Your task to perform on an android device: delete location history Image 0: 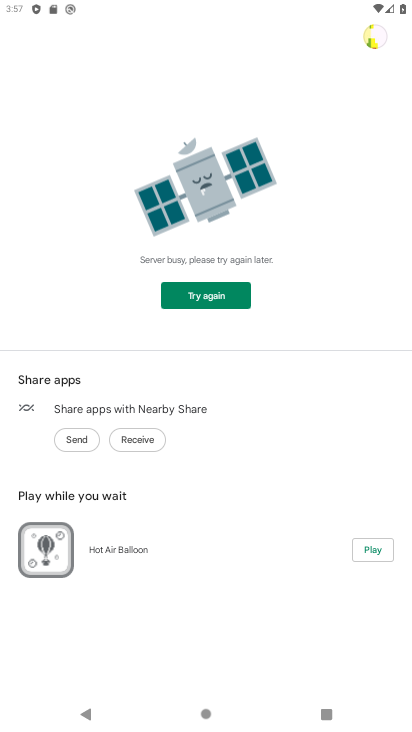
Step 0: press home button
Your task to perform on an android device: delete location history Image 1: 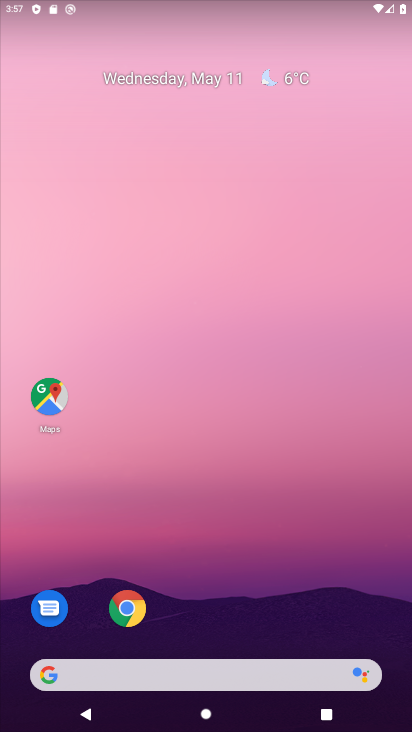
Step 1: drag from (234, 690) to (234, 127)
Your task to perform on an android device: delete location history Image 2: 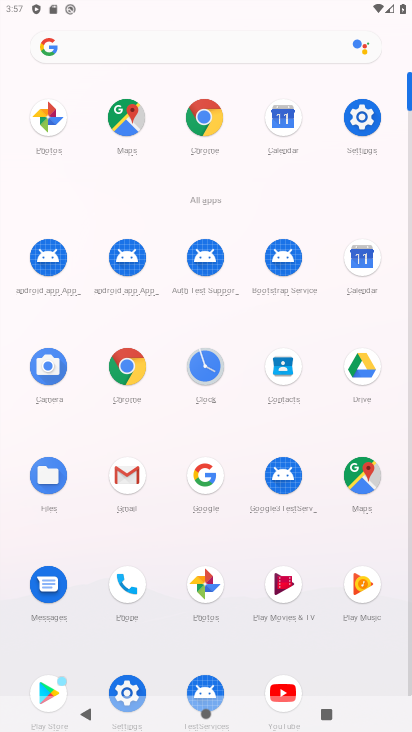
Step 2: click (363, 477)
Your task to perform on an android device: delete location history Image 3: 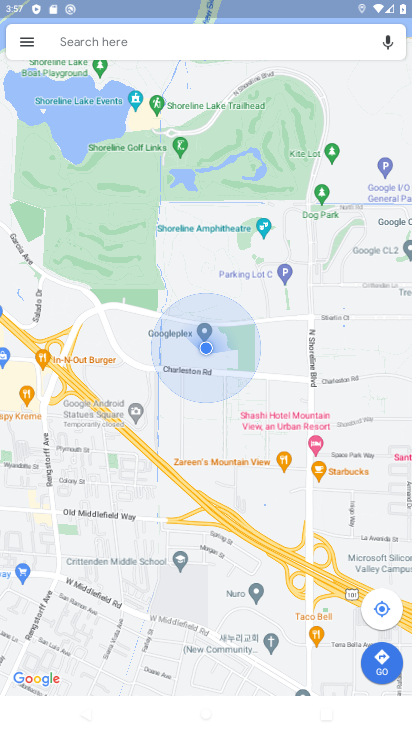
Step 3: click (26, 36)
Your task to perform on an android device: delete location history Image 4: 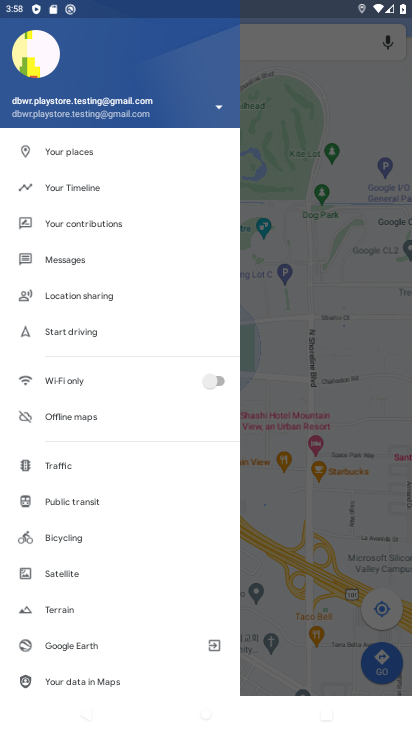
Step 4: click (78, 187)
Your task to perform on an android device: delete location history Image 5: 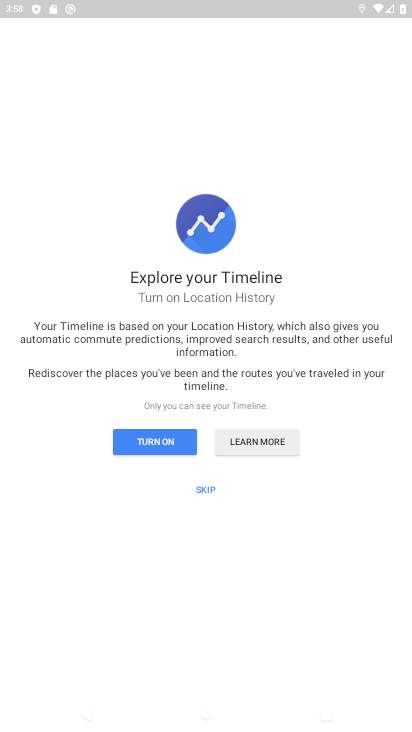
Step 5: click (207, 487)
Your task to perform on an android device: delete location history Image 6: 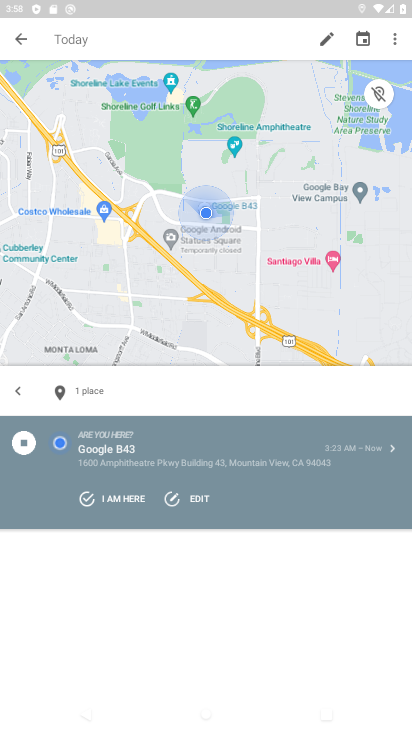
Step 6: click (395, 41)
Your task to perform on an android device: delete location history Image 7: 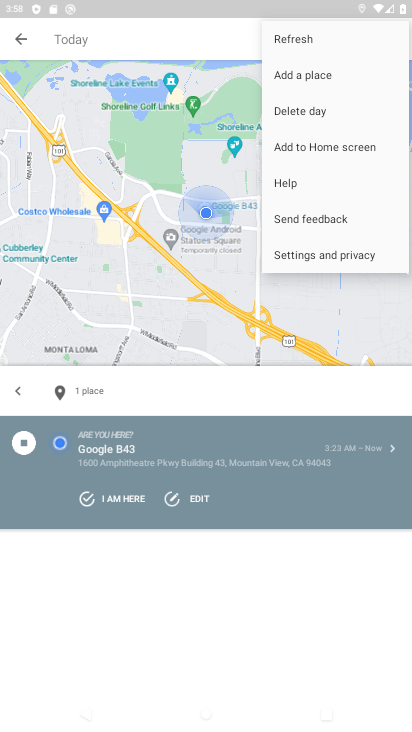
Step 7: click (291, 253)
Your task to perform on an android device: delete location history Image 8: 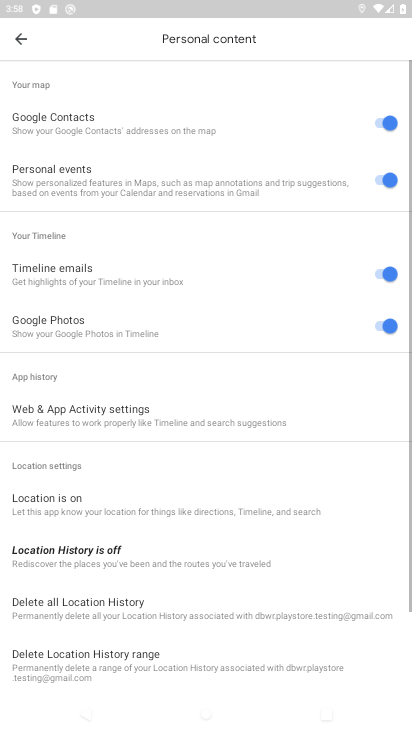
Step 8: drag from (206, 616) to (219, 241)
Your task to perform on an android device: delete location history Image 9: 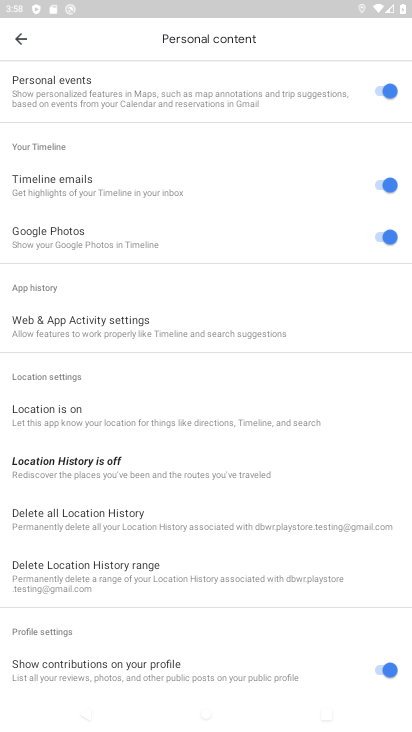
Step 9: click (102, 512)
Your task to perform on an android device: delete location history Image 10: 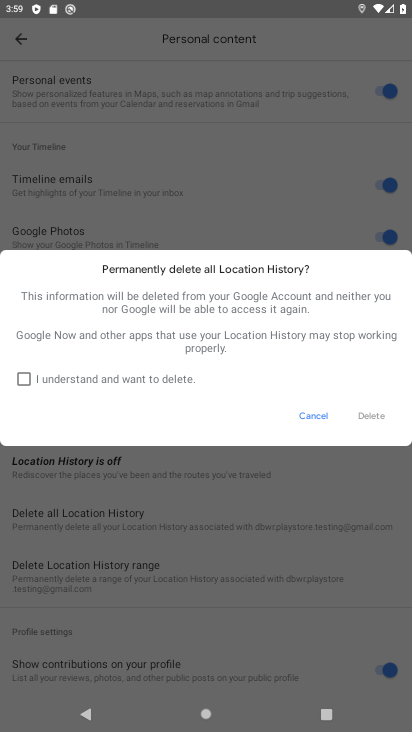
Step 10: click (25, 375)
Your task to perform on an android device: delete location history Image 11: 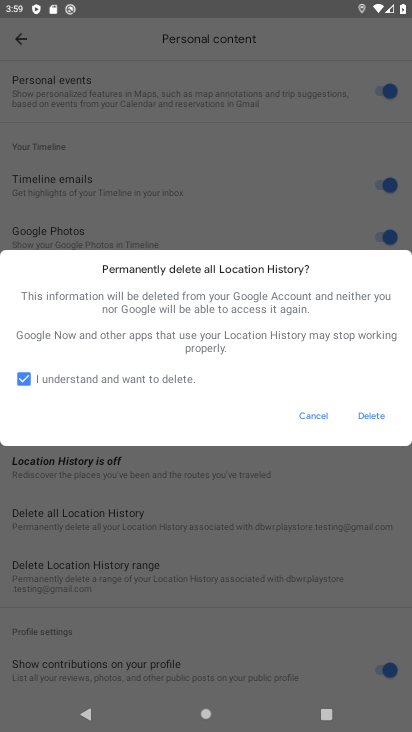
Step 11: click (369, 413)
Your task to perform on an android device: delete location history Image 12: 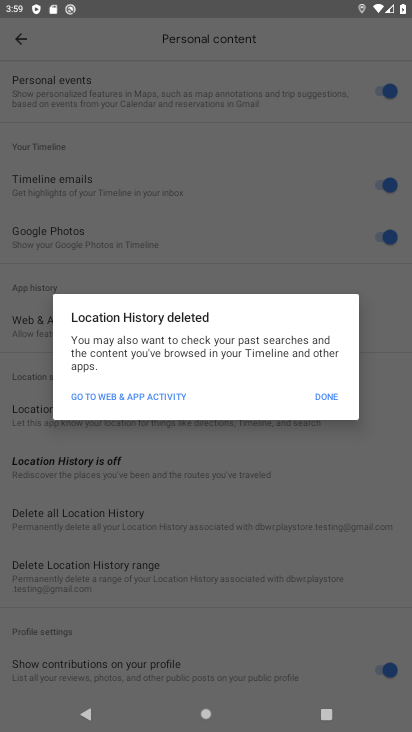
Step 12: click (327, 395)
Your task to perform on an android device: delete location history Image 13: 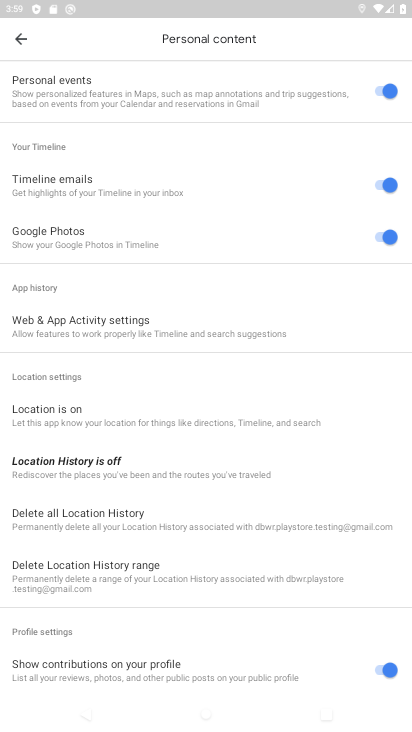
Step 13: task complete